Your task to perform on an android device: Open display settings Image 0: 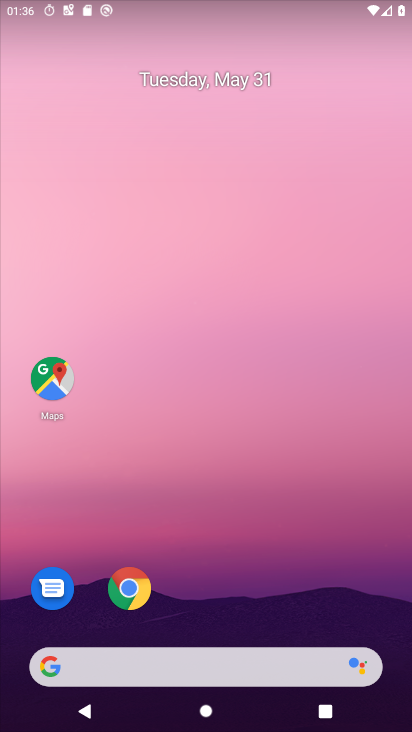
Step 0: drag from (319, 566) to (323, 18)
Your task to perform on an android device: Open display settings Image 1: 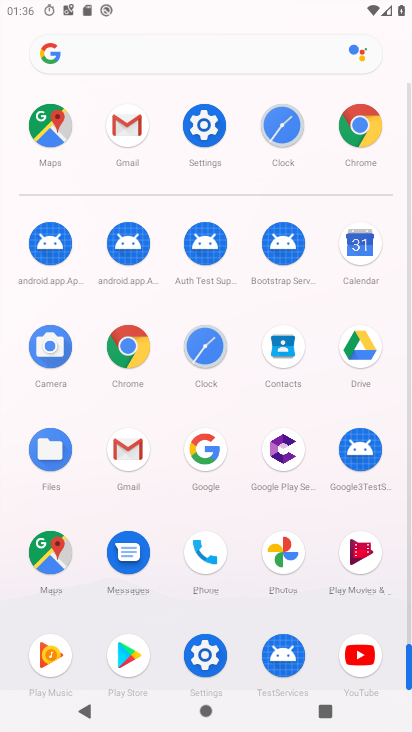
Step 1: click (206, 120)
Your task to perform on an android device: Open display settings Image 2: 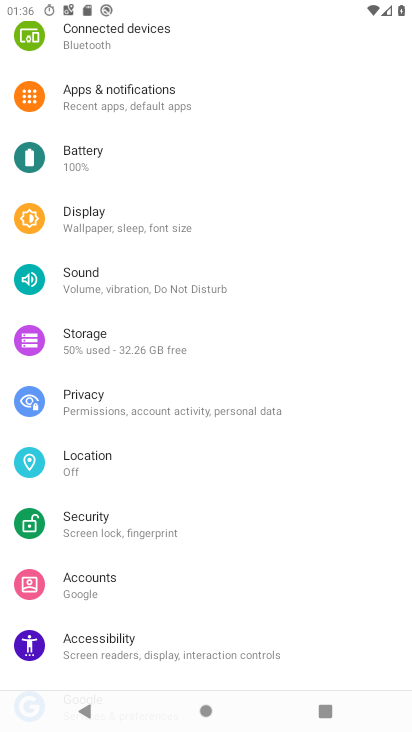
Step 2: click (151, 231)
Your task to perform on an android device: Open display settings Image 3: 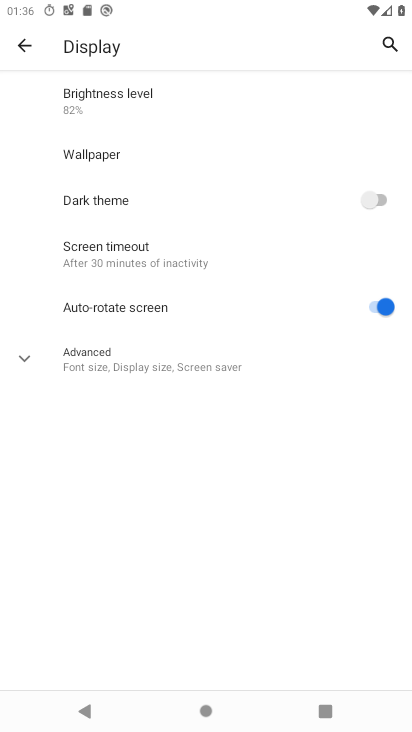
Step 3: task complete